Your task to perform on an android device: read, delete, or share a saved page in the chrome app Image 0: 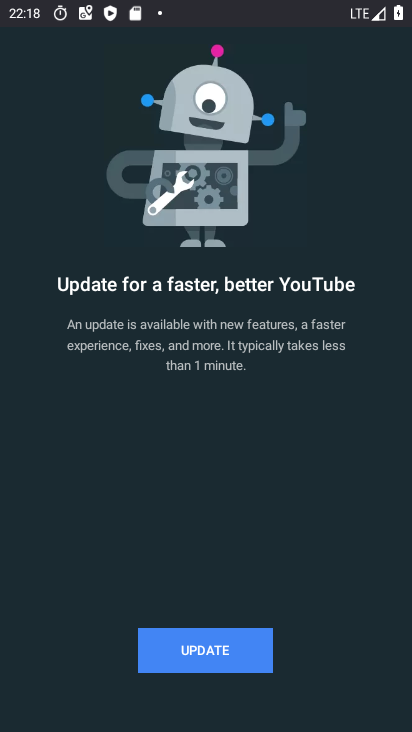
Step 0: press home button
Your task to perform on an android device: read, delete, or share a saved page in the chrome app Image 1: 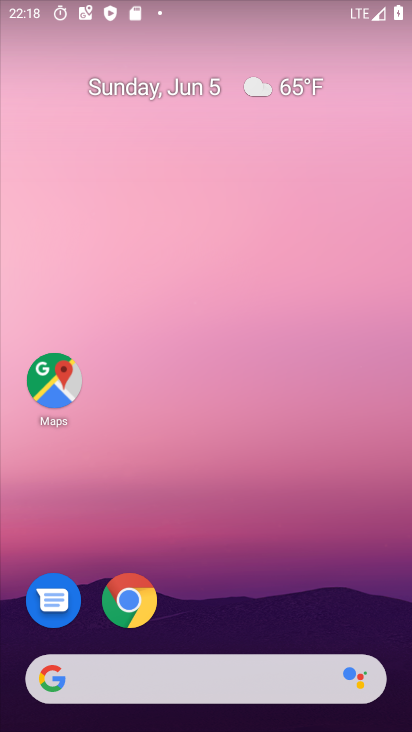
Step 1: click (133, 599)
Your task to perform on an android device: read, delete, or share a saved page in the chrome app Image 2: 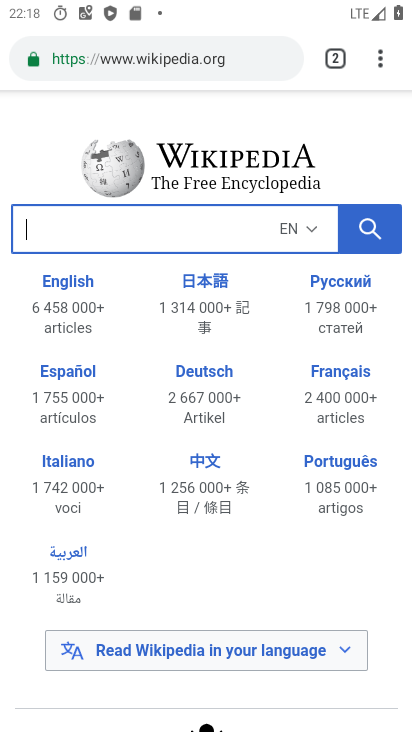
Step 2: task complete